Your task to perform on an android device: Go to internet settings Image 0: 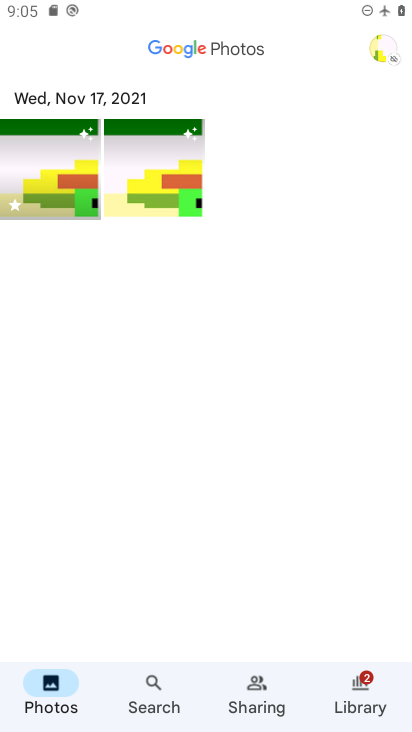
Step 0: press home button
Your task to perform on an android device: Go to internet settings Image 1: 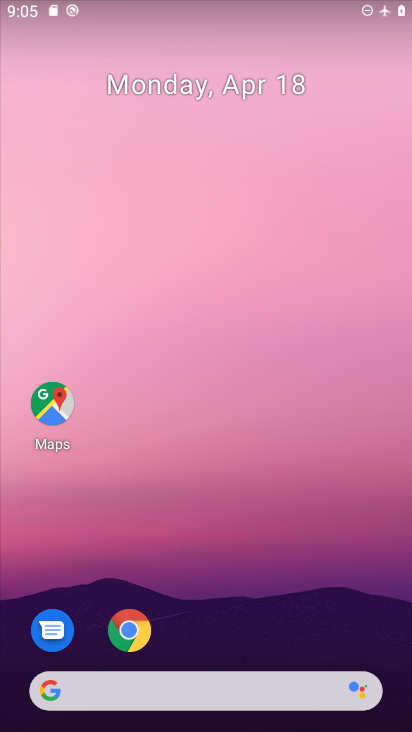
Step 1: drag from (210, 619) to (296, 85)
Your task to perform on an android device: Go to internet settings Image 2: 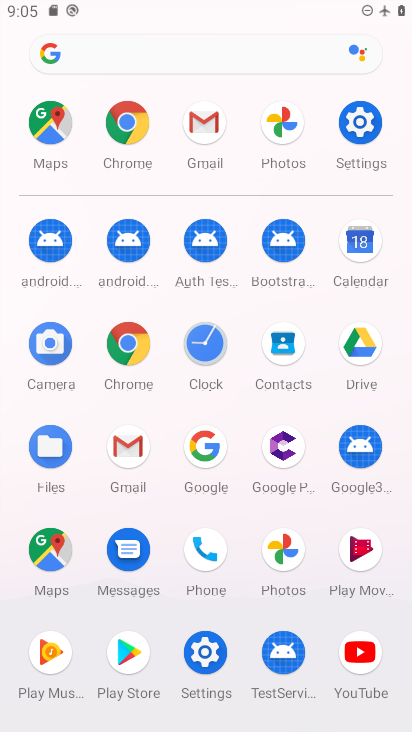
Step 2: click (364, 132)
Your task to perform on an android device: Go to internet settings Image 3: 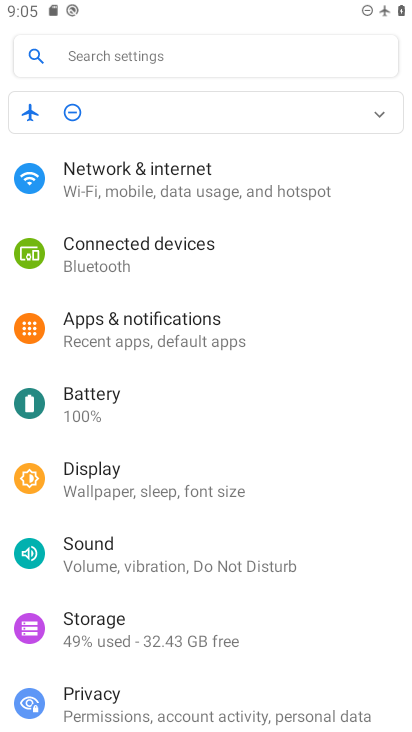
Step 3: click (182, 190)
Your task to perform on an android device: Go to internet settings Image 4: 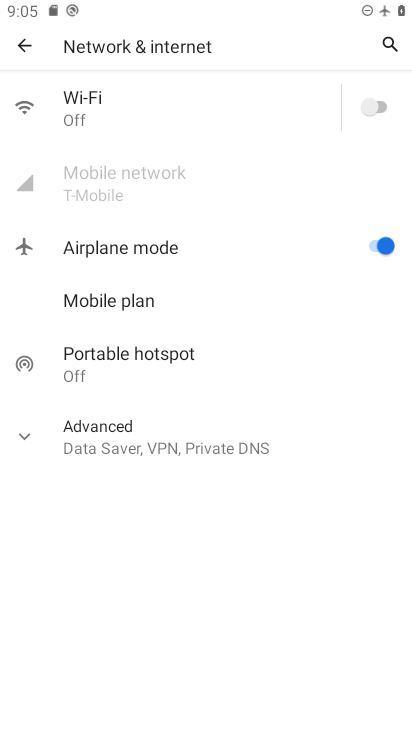
Step 4: task complete